Your task to perform on an android device: Show me productivity apps on the Play Store Image 0: 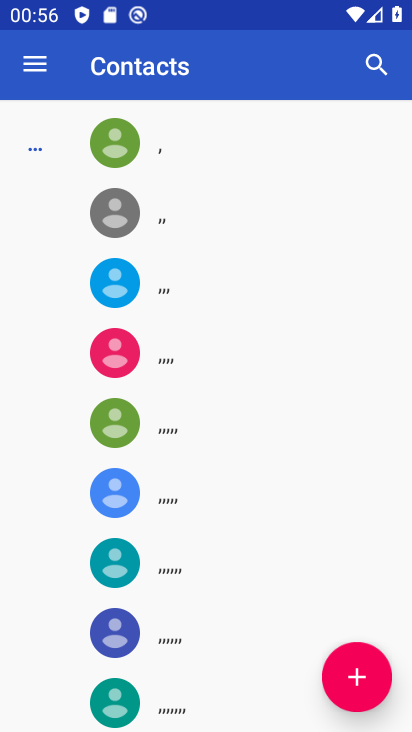
Step 0: press home button
Your task to perform on an android device: Show me productivity apps on the Play Store Image 1: 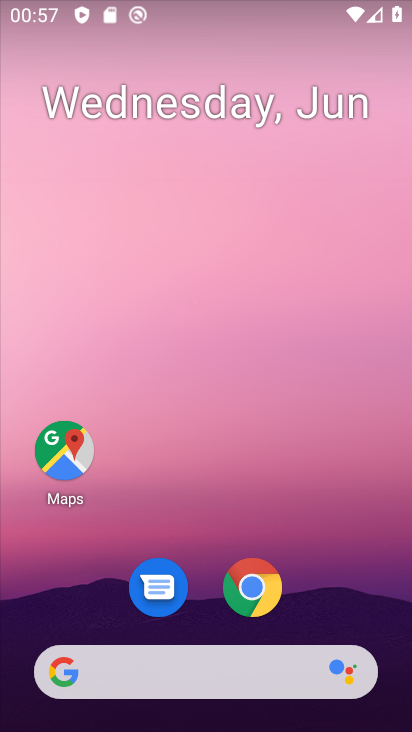
Step 1: drag from (310, 492) to (276, 128)
Your task to perform on an android device: Show me productivity apps on the Play Store Image 2: 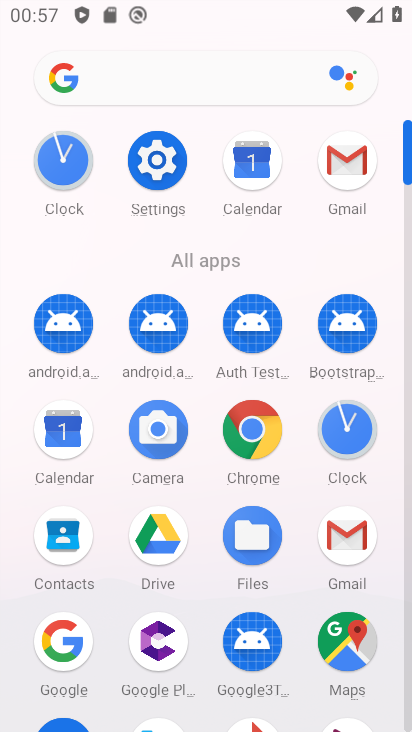
Step 2: drag from (310, 333) to (314, 275)
Your task to perform on an android device: Show me productivity apps on the Play Store Image 3: 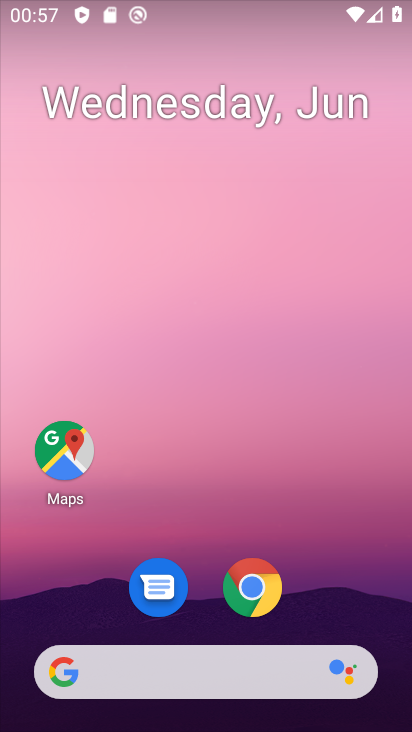
Step 3: click (302, 116)
Your task to perform on an android device: Show me productivity apps on the Play Store Image 4: 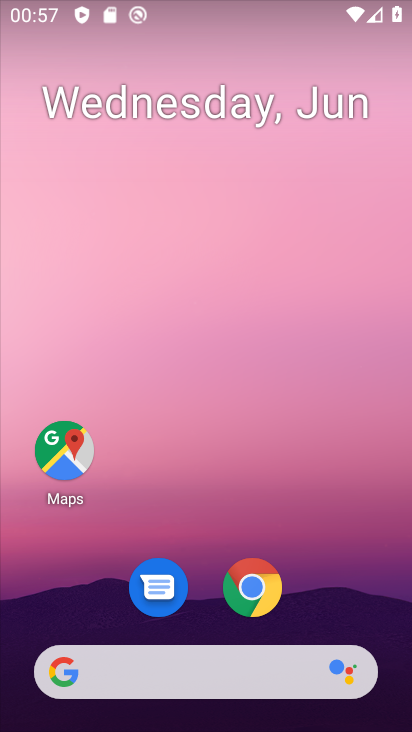
Step 4: drag from (312, 568) to (293, 76)
Your task to perform on an android device: Show me productivity apps on the Play Store Image 5: 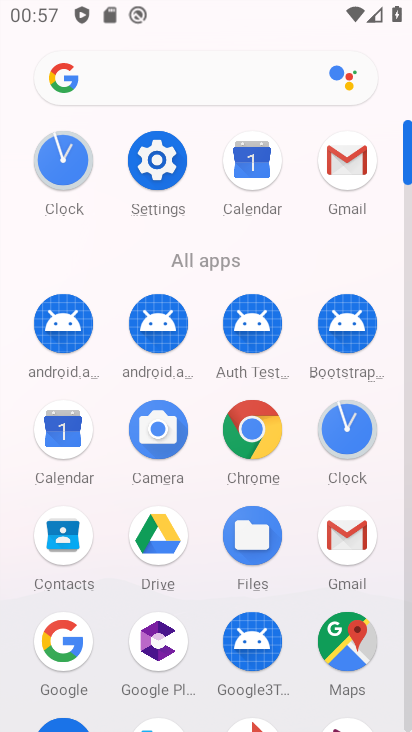
Step 5: drag from (291, 595) to (301, 188)
Your task to perform on an android device: Show me productivity apps on the Play Store Image 6: 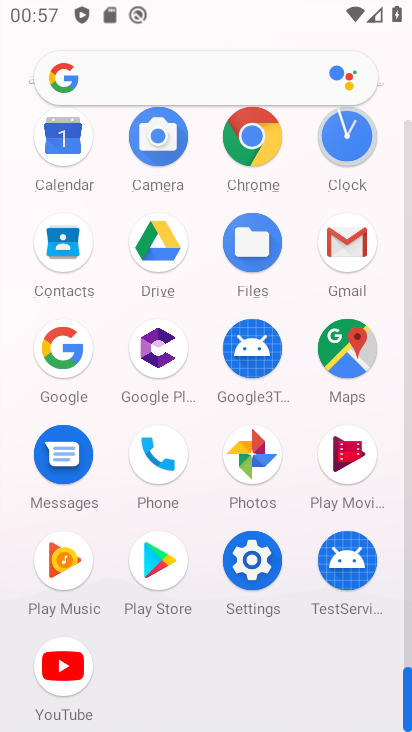
Step 6: click (168, 554)
Your task to perform on an android device: Show me productivity apps on the Play Store Image 7: 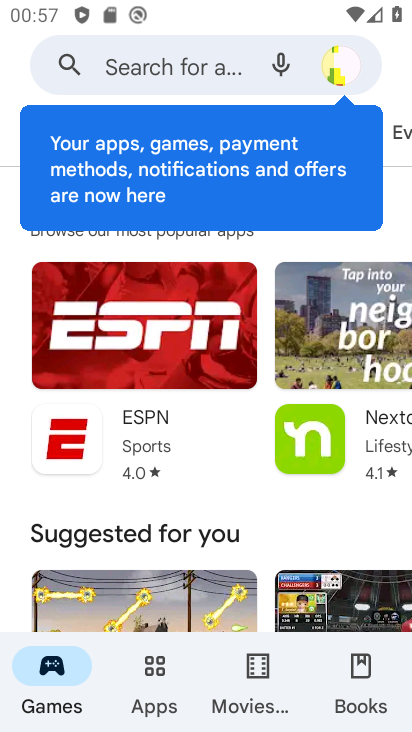
Step 7: click (161, 687)
Your task to perform on an android device: Show me productivity apps on the Play Store Image 8: 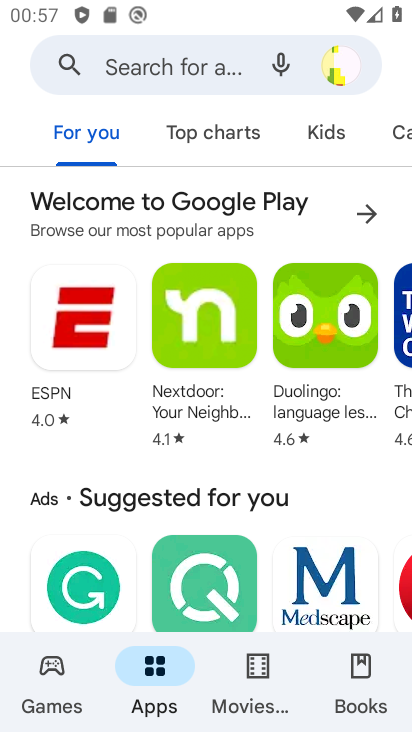
Step 8: drag from (302, 382) to (310, 68)
Your task to perform on an android device: Show me productivity apps on the Play Store Image 9: 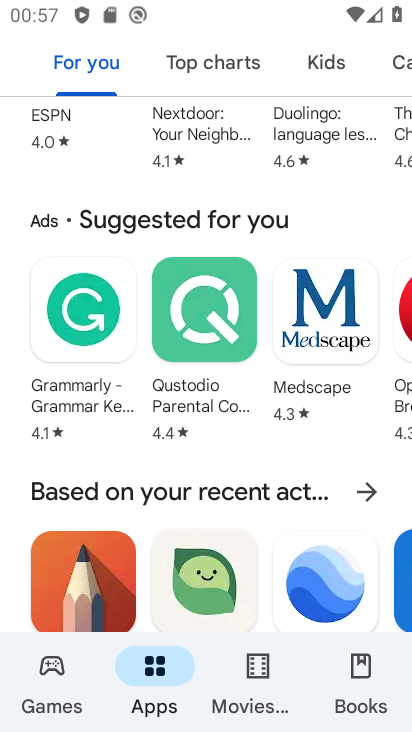
Step 9: drag from (225, 464) to (194, 63)
Your task to perform on an android device: Show me productivity apps on the Play Store Image 10: 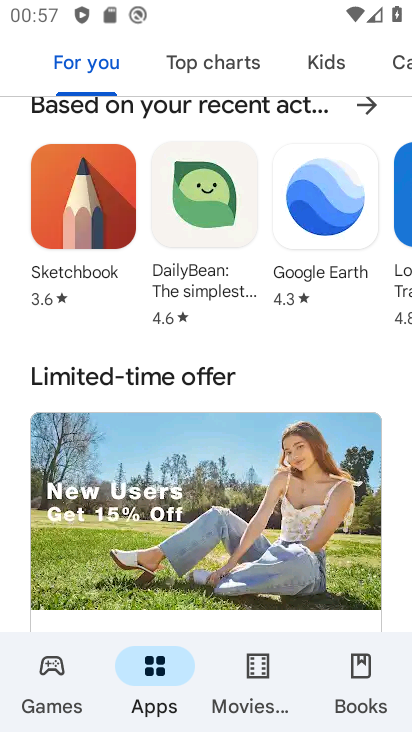
Step 10: drag from (261, 529) to (287, 54)
Your task to perform on an android device: Show me productivity apps on the Play Store Image 11: 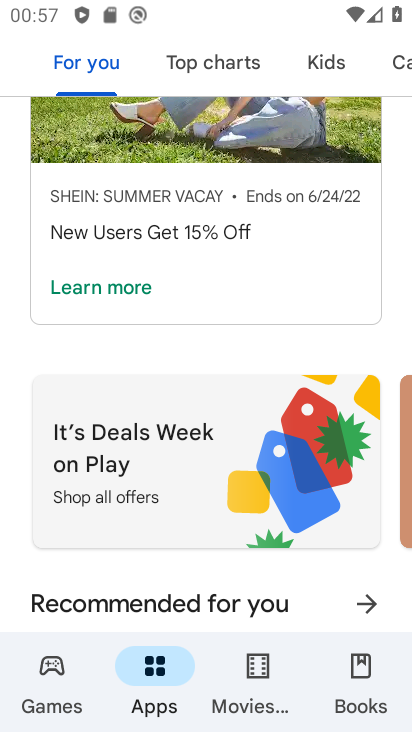
Step 11: drag from (237, 297) to (256, 123)
Your task to perform on an android device: Show me productivity apps on the Play Store Image 12: 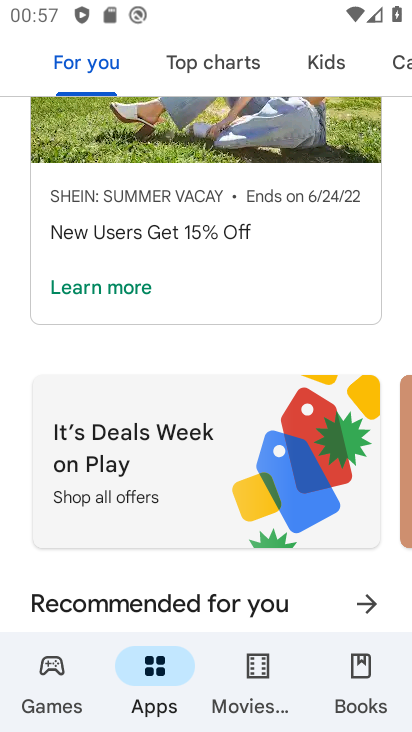
Step 12: click (230, 169)
Your task to perform on an android device: Show me productivity apps on the Play Store Image 13: 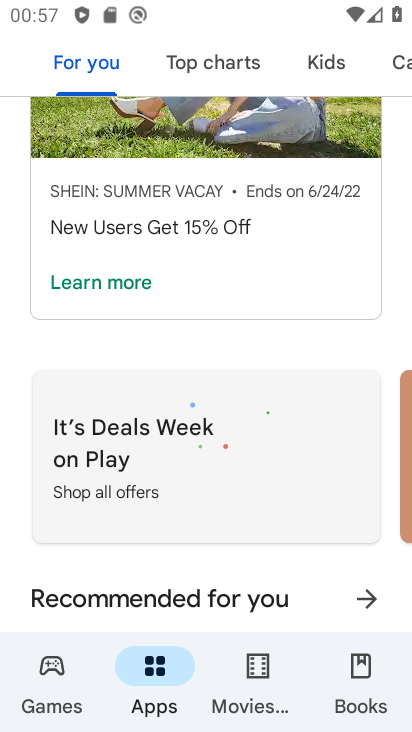
Step 13: click (394, 311)
Your task to perform on an android device: Show me productivity apps on the Play Store Image 14: 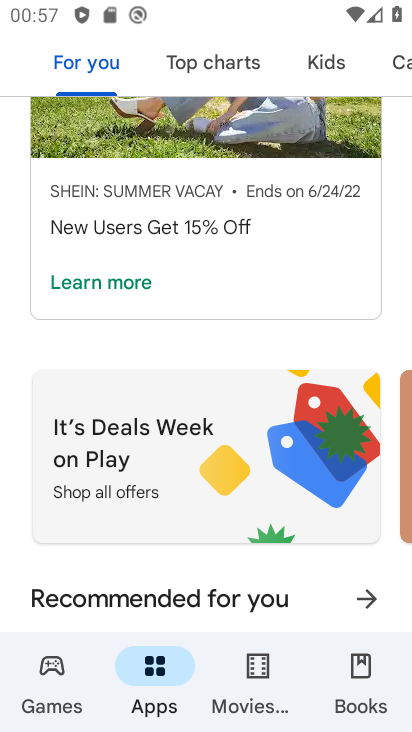
Step 14: drag from (243, 388) to (259, 145)
Your task to perform on an android device: Show me productivity apps on the Play Store Image 15: 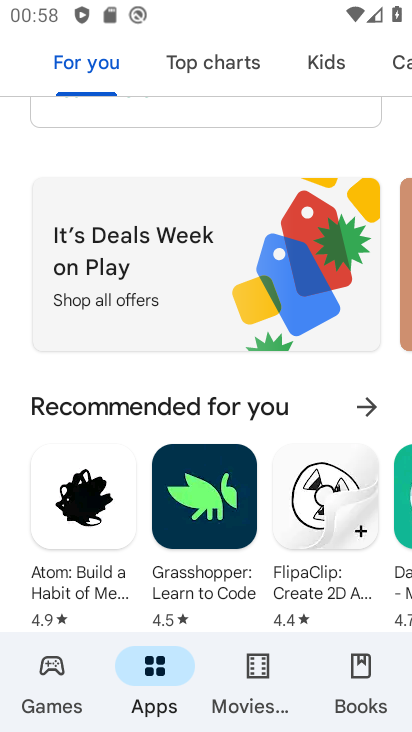
Step 15: drag from (262, 584) to (257, 218)
Your task to perform on an android device: Show me productivity apps on the Play Store Image 16: 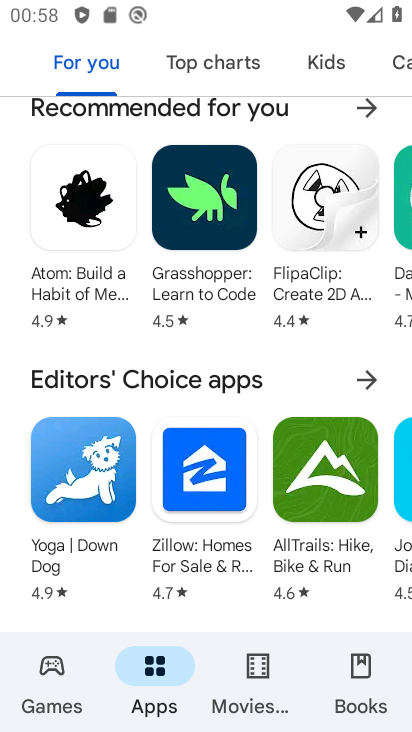
Step 16: drag from (259, 570) to (226, 121)
Your task to perform on an android device: Show me productivity apps on the Play Store Image 17: 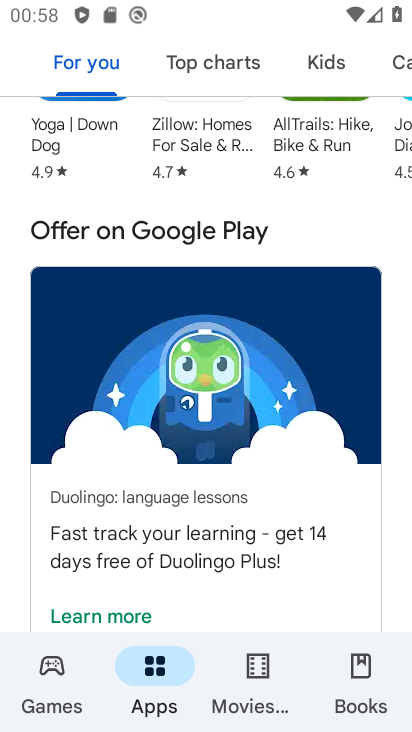
Step 17: drag from (320, 605) to (225, 144)
Your task to perform on an android device: Show me productivity apps on the Play Store Image 18: 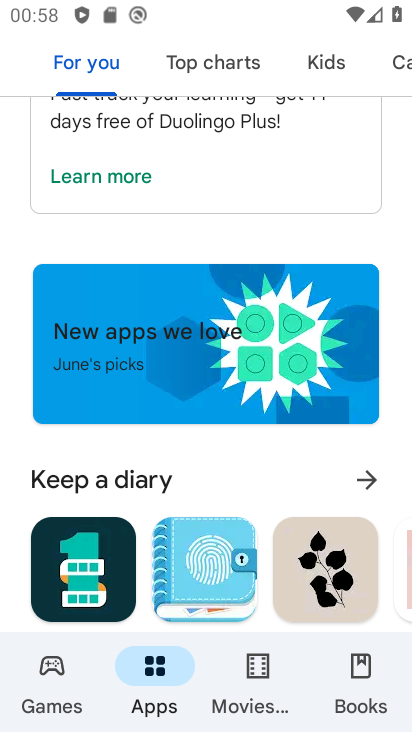
Step 18: drag from (254, 588) to (232, 243)
Your task to perform on an android device: Show me productivity apps on the Play Store Image 19: 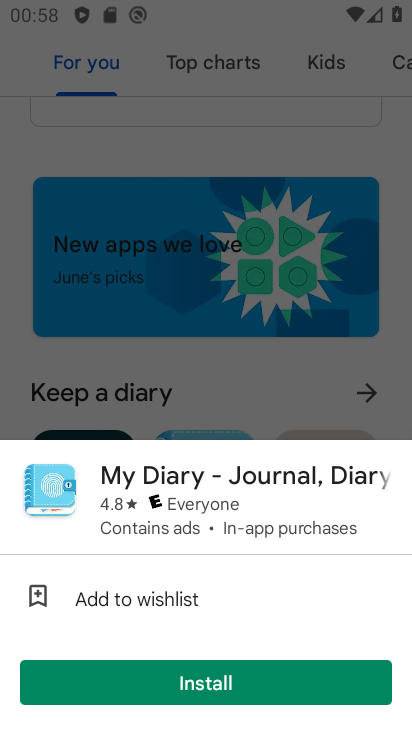
Step 19: click (381, 303)
Your task to perform on an android device: Show me productivity apps on the Play Store Image 20: 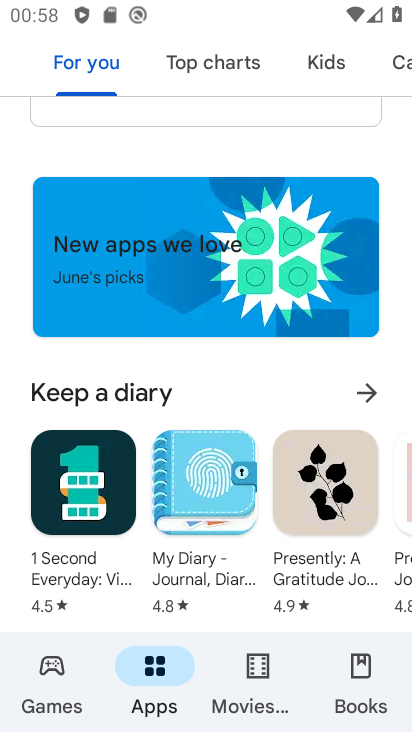
Step 20: drag from (235, 327) to (254, 255)
Your task to perform on an android device: Show me productivity apps on the Play Store Image 21: 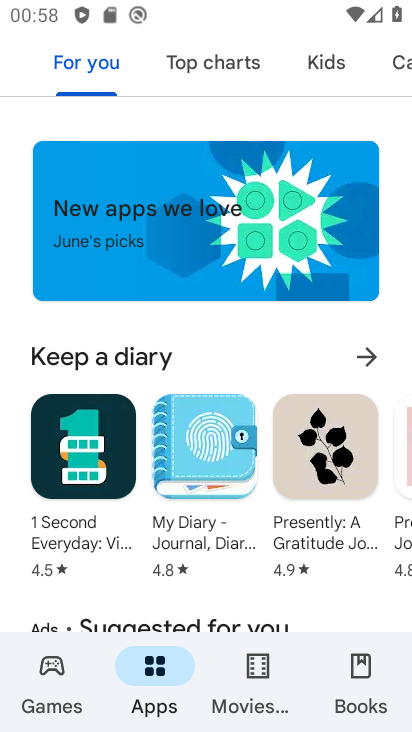
Step 21: drag from (236, 492) to (257, 186)
Your task to perform on an android device: Show me productivity apps on the Play Store Image 22: 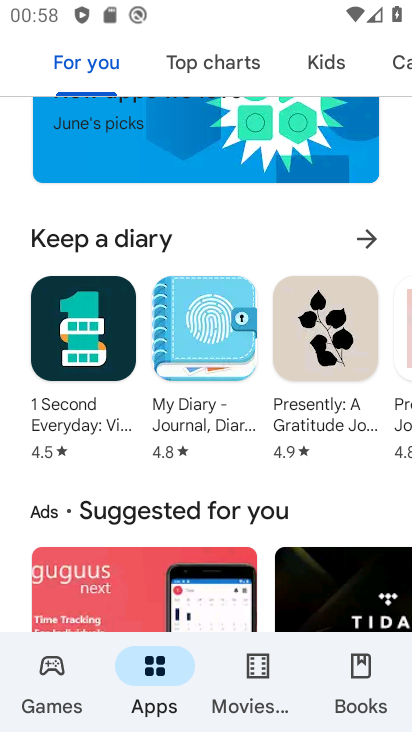
Step 22: drag from (311, 497) to (271, 102)
Your task to perform on an android device: Show me productivity apps on the Play Store Image 23: 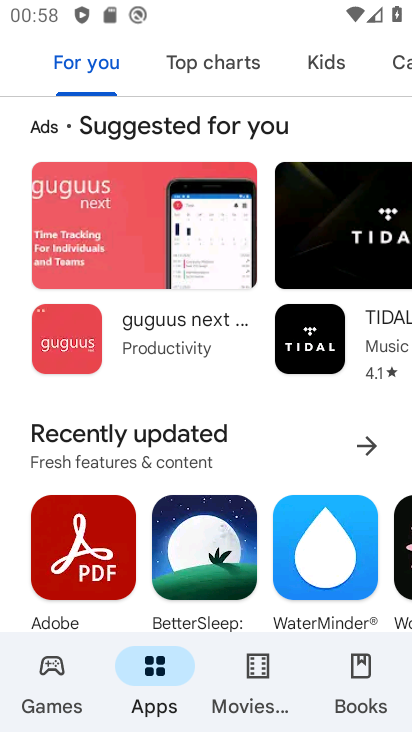
Step 23: drag from (135, 583) to (162, 217)
Your task to perform on an android device: Show me productivity apps on the Play Store Image 24: 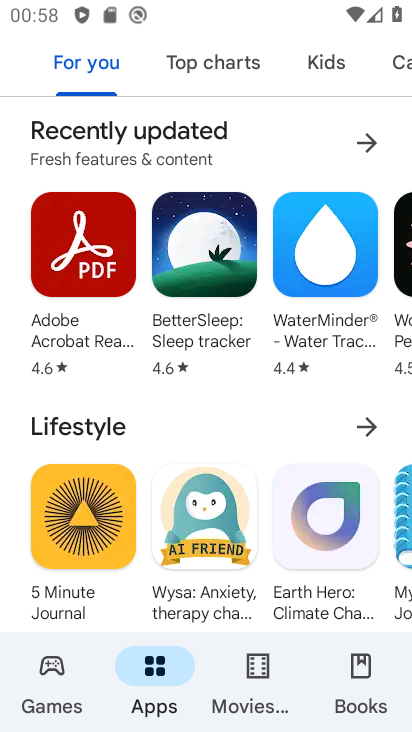
Step 24: drag from (261, 253) to (249, 106)
Your task to perform on an android device: Show me productivity apps on the Play Store Image 25: 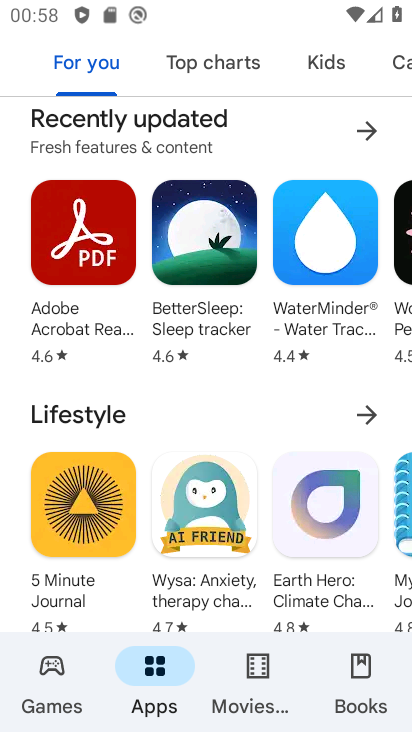
Step 25: drag from (136, 599) to (154, 253)
Your task to perform on an android device: Show me productivity apps on the Play Store Image 26: 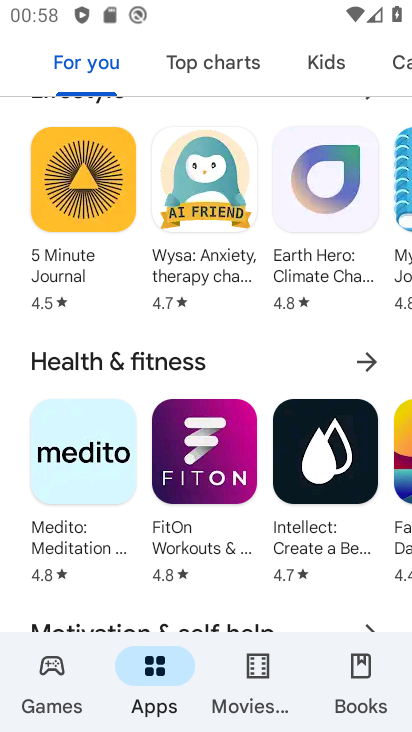
Step 26: drag from (145, 419) to (175, 161)
Your task to perform on an android device: Show me productivity apps on the Play Store Image 27: 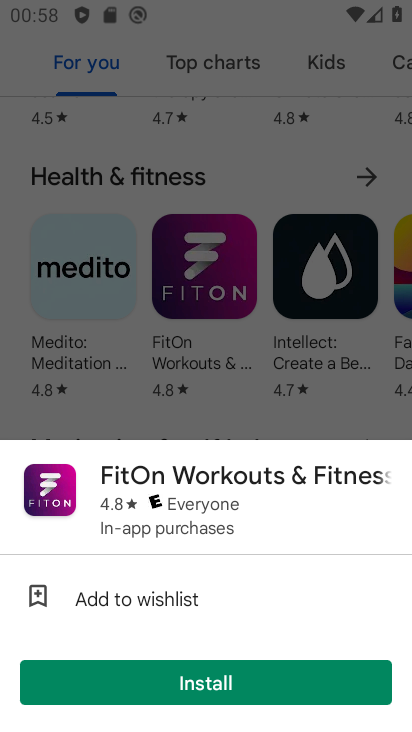
Step 27: click (126, 354)
Your task to perform on an android device: Show me productivity apps on the Play Store Image 28: 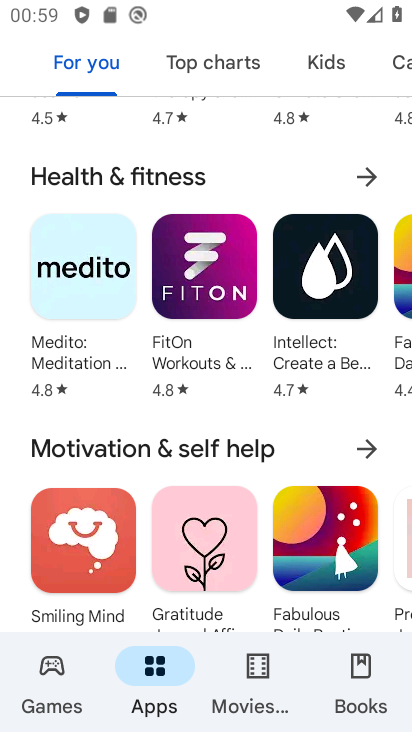
Step 28: drag from (142, 563) to (184, 129)
Your task to perform on an android device: Show me productivity apps on the Play Store Image 29: 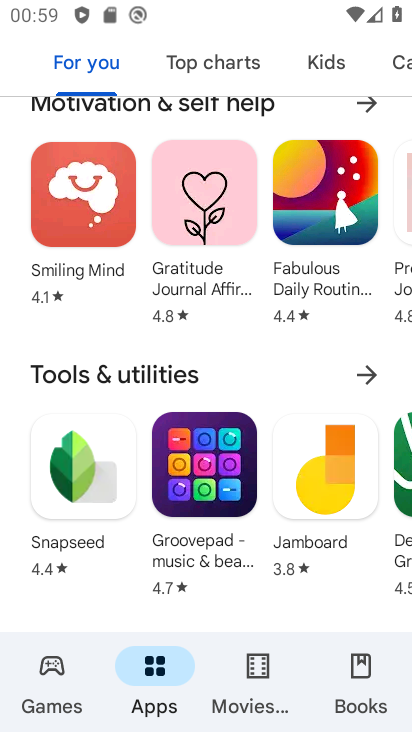
Step 29: drag from (117, 461) to (165, 132)
Your task to perform on an android device: Show me productivity apps on the Play Store Image 30: 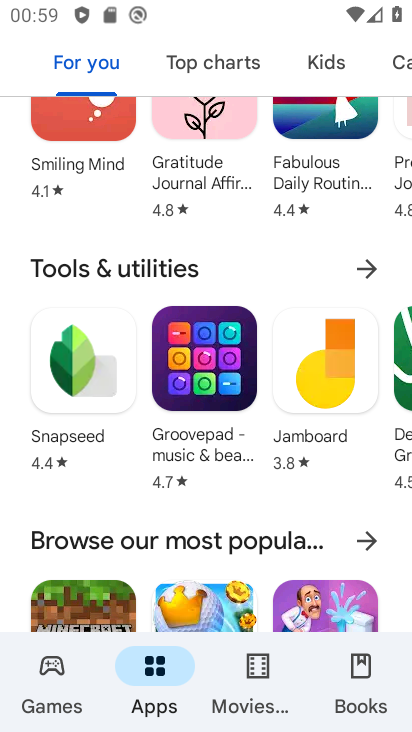
Step 30: drag from (128, 339) to (148, 146)
Your task to perform on an android device: Show me productivity apps on the Play Store Image 31: 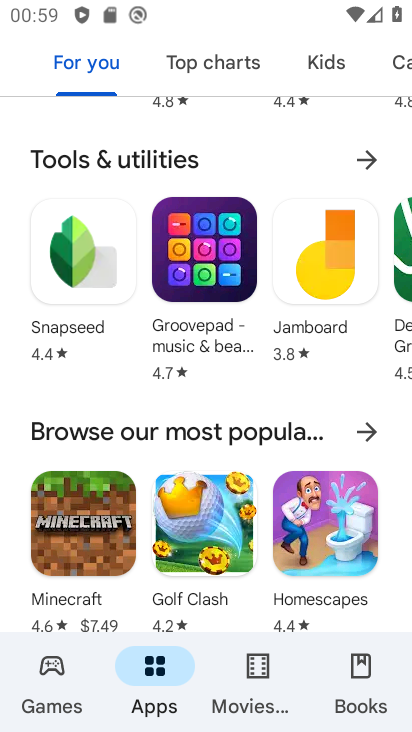
Step 31: click (123, 21)
Your task to perform on an android device: Show me productivity apps on the Play Store Image 32: 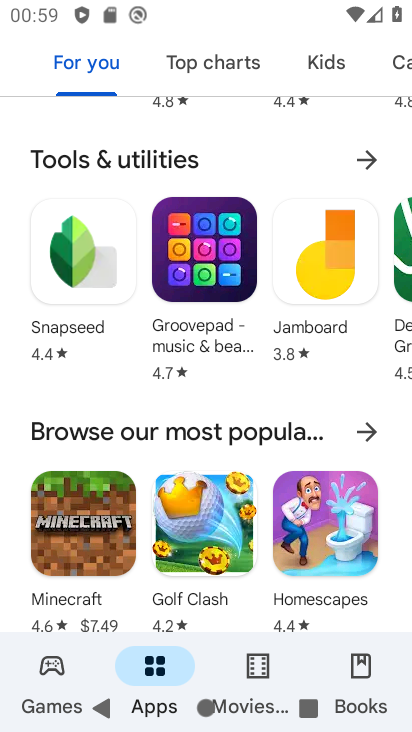
Step 32: drag from (137, 613) to (181, 67)
Your task to perform on an android device: Show me productivity apps on the Play Store Image 33: 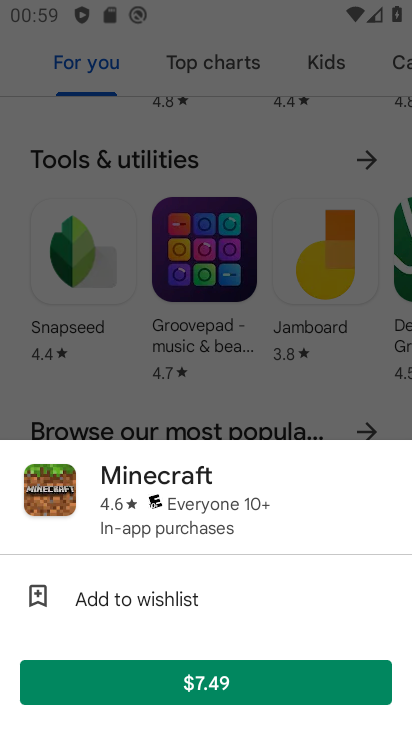
Step 33: click (132, 329)
Your task to perform on an android device: Show me productivity apps on the Play Store Image 34: 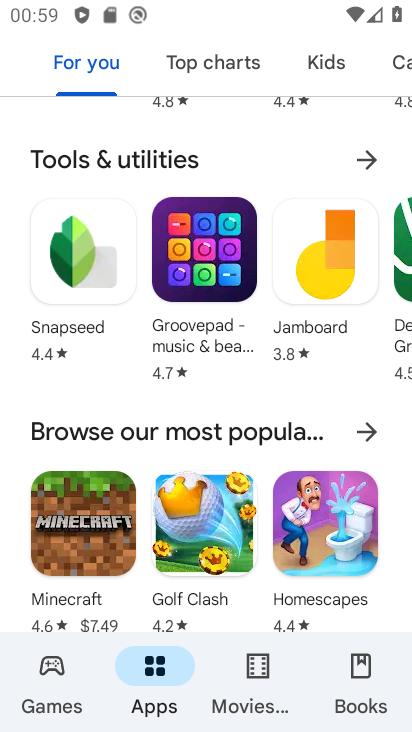
Step 34: drag from (137, 261) to (176, 124)
Your task to perform on an android device: Show me productivity apps on the Play Store Image 35: 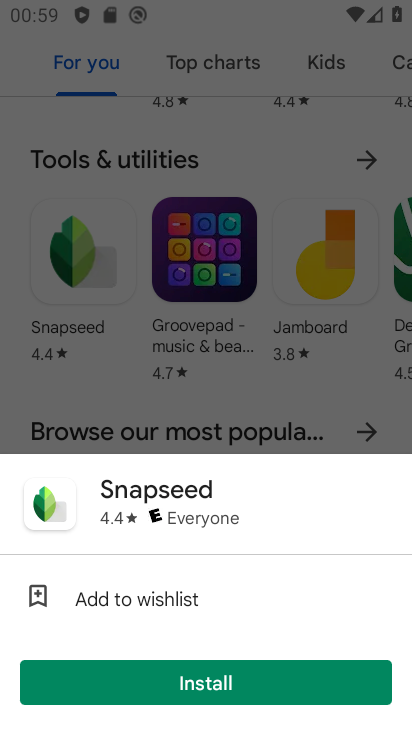
Step 35: click (326, 383)
Your task to perform on an android device: Show me productivity apps on the Play Store Image 36: 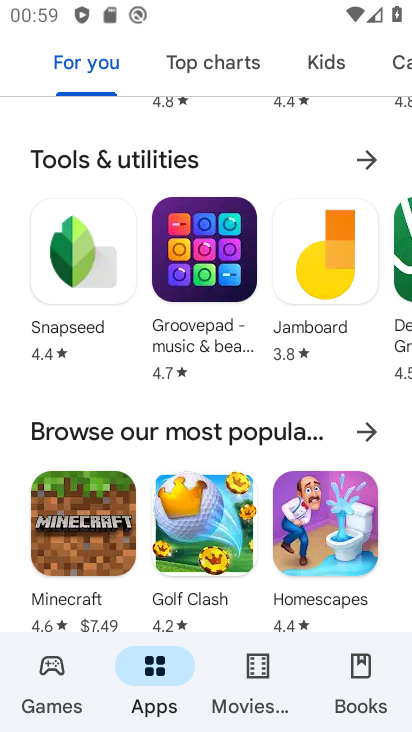
Step 36: task complete